Your task to perform on an android device: Show me productivity apps on the Play Store Image 0: 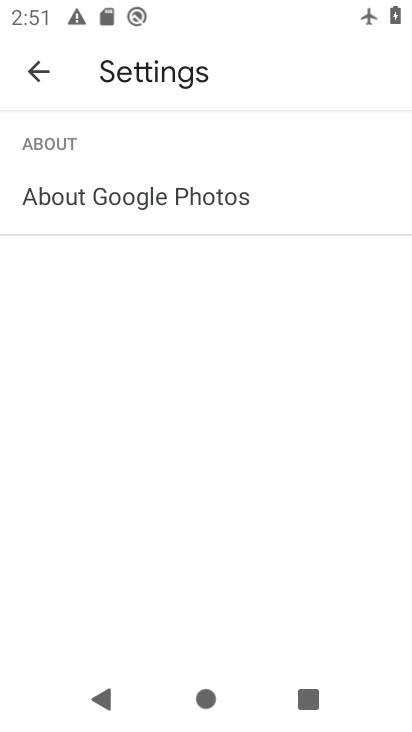
Step 0: press home button
Your task to perform on an android device: Show me productivity apps on the Play Store Image 1: 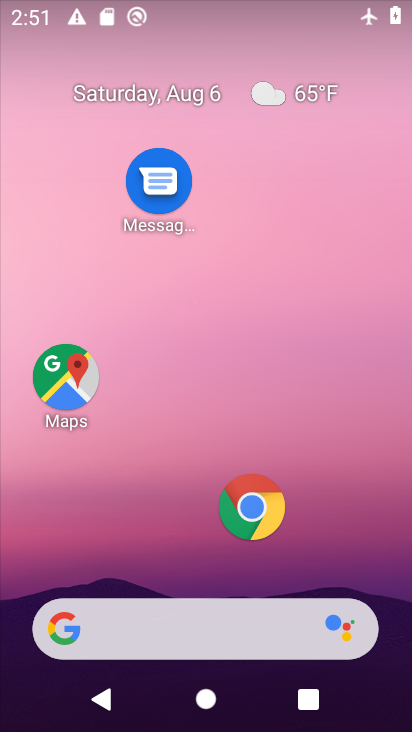
Step 1: drag from (163, 568) to (200, 90)
Your task to perform on an android device: Show me productivity apps on the Play Store Image 2: 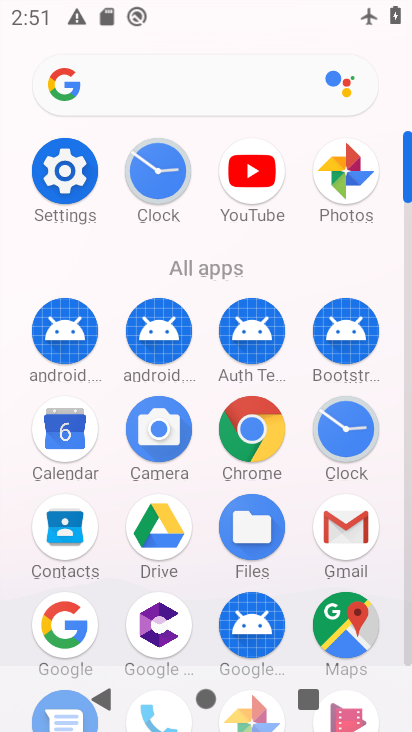
Step 2: drag from (192, 582) to (193, 351)
Your task to perform on an android device: Show me productivity apps on the Play Store Image 3: 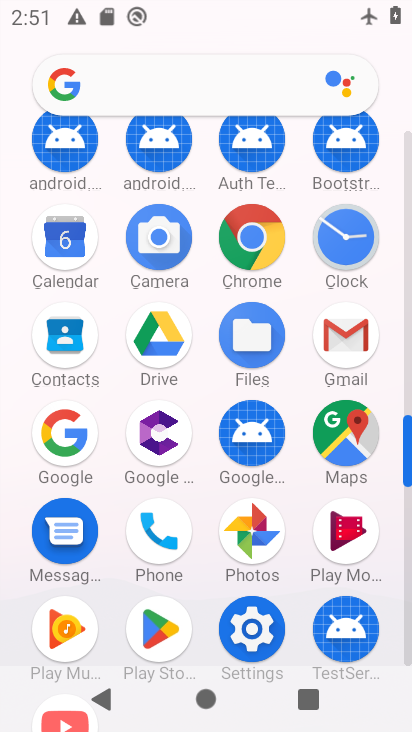
Step 3: click (159, 615)
Your task to perform on an android device: Show me productivity apps on the Play Store Image 4: 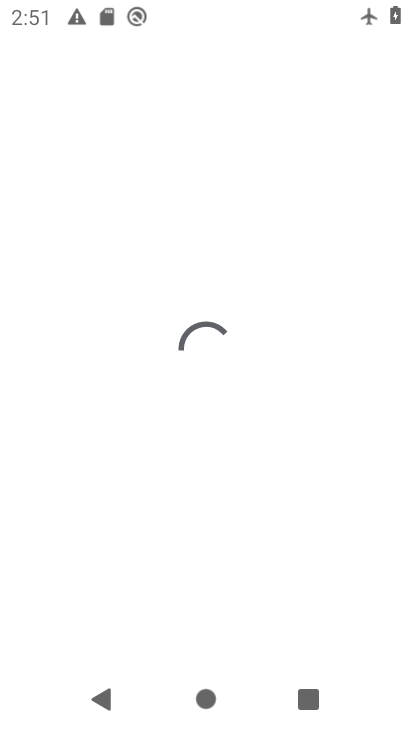
Step 4: click (161, 599)
Your task to perform on an android device: Show me productivity apps on the Play Store Image 5: 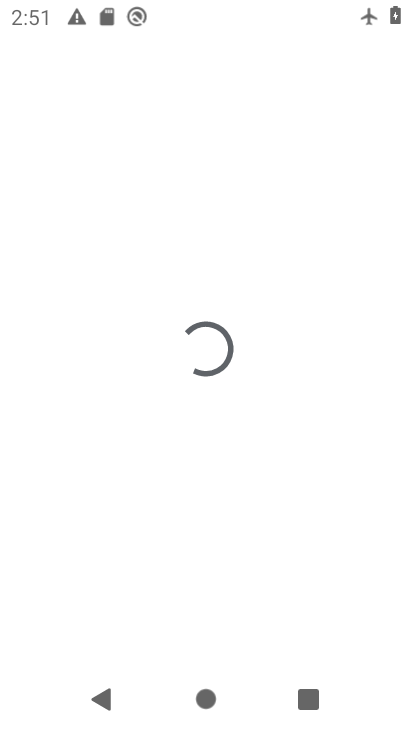
Step 5: task complete